Your task to perform on an android device: move an email to a new category in the gmail app Image 0: 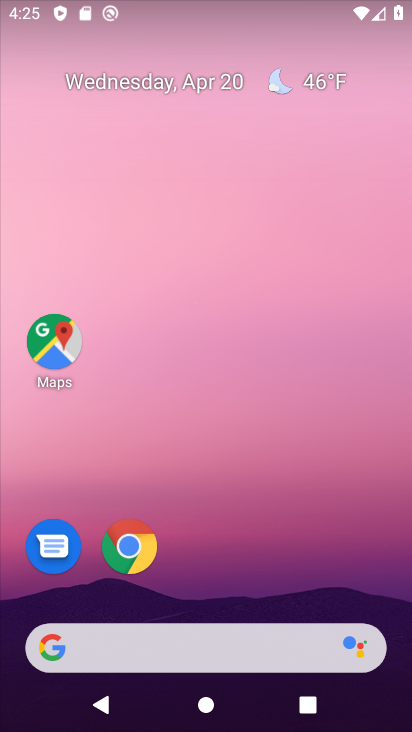
Step 0: drag from (249, 305) to (249, 217)
Your task to perform on an android device: move an email to a new category in the gmail app Image 1: 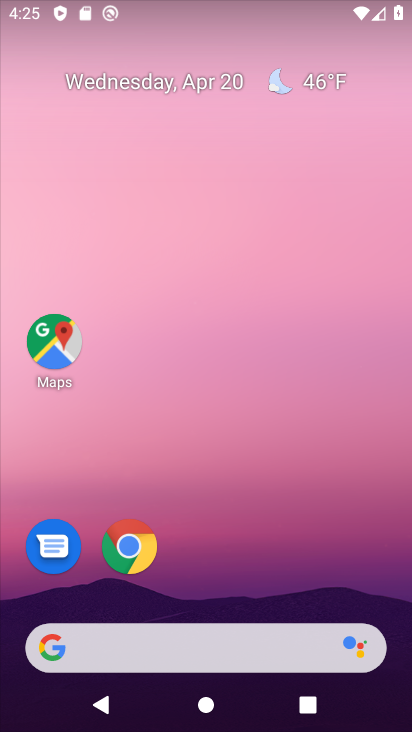
Step 1: drag from (291, 522) to (284, 104)
Your task to perform on an android device: move an email to a new category in the gmail app Image 2: 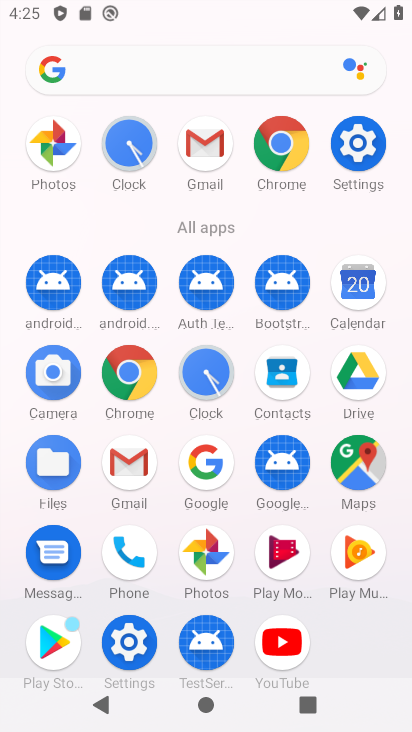
Step 2: click (131, 470)
Your task to perform on an android device: move an email to a new category in the gmail app Image 3: 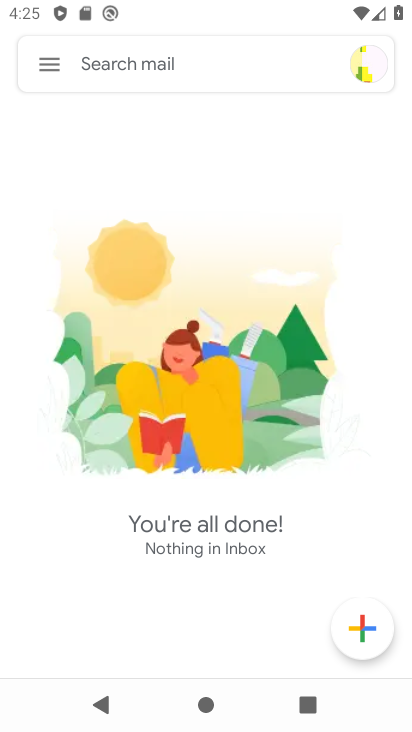
Step 3: task complete